Your task to perform on an android device: open wifi settings Image 0: 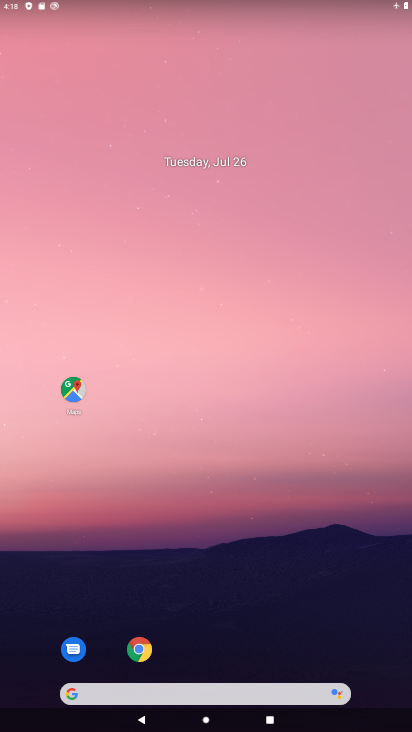
Step 0: drag from (198, 628) to (218, 21)
Your task to perform on an android device: open wifi settings Image 1: 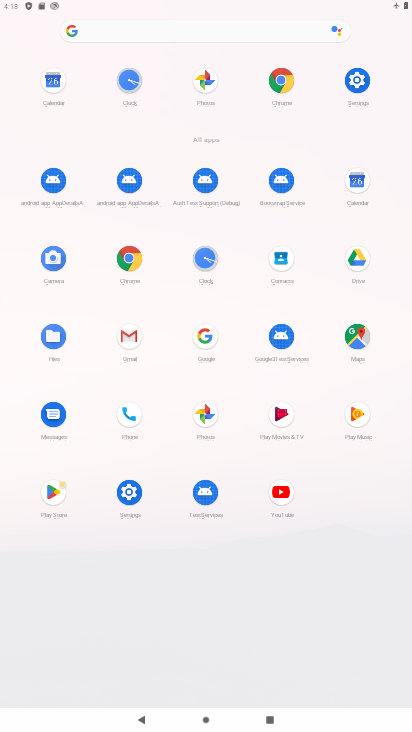
Step 1: click (345, 92)
Your task to perform on an android device: open wifi settings Image 2: 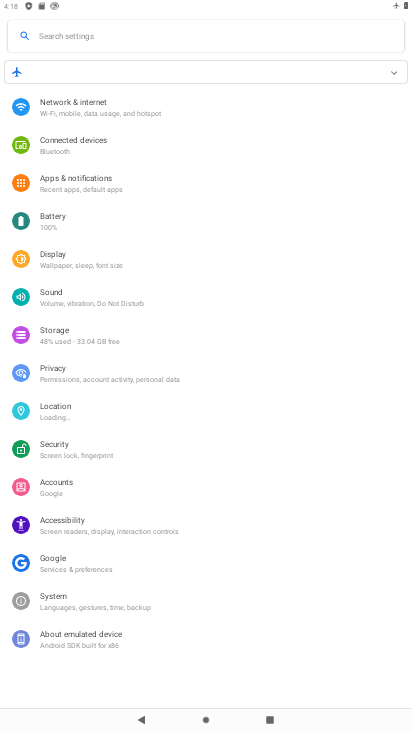
Step 2: click (90, 122)
Your task to perform on an android device: open wifi settings Image 3: 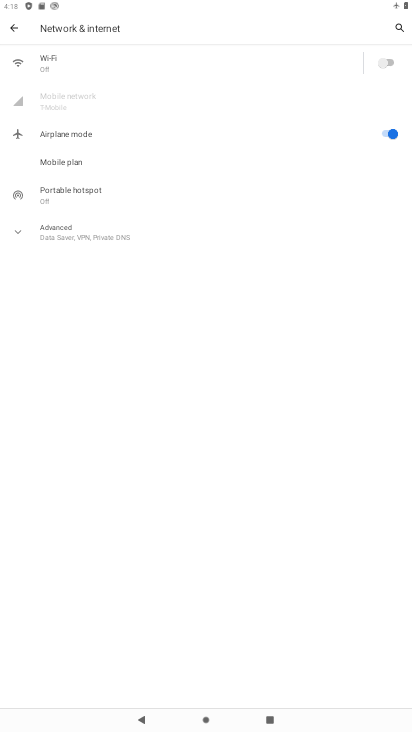
Step 3: click (78, 65)
Your task to perform on an android device: open wifi settings Image 4: 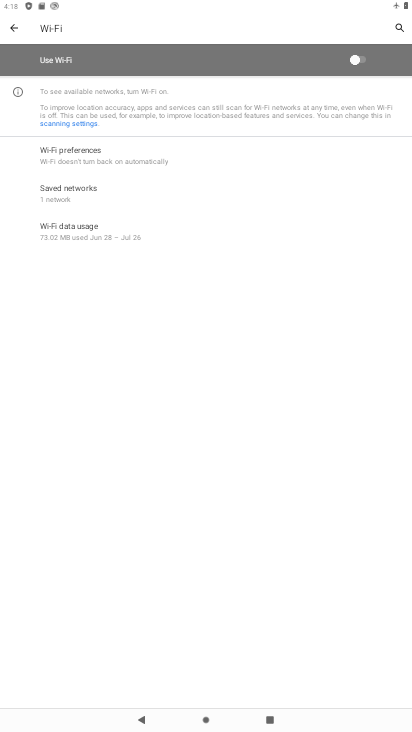
Step 4: task complete